Your task to perform on an android device: What's the weather today? Image 0: 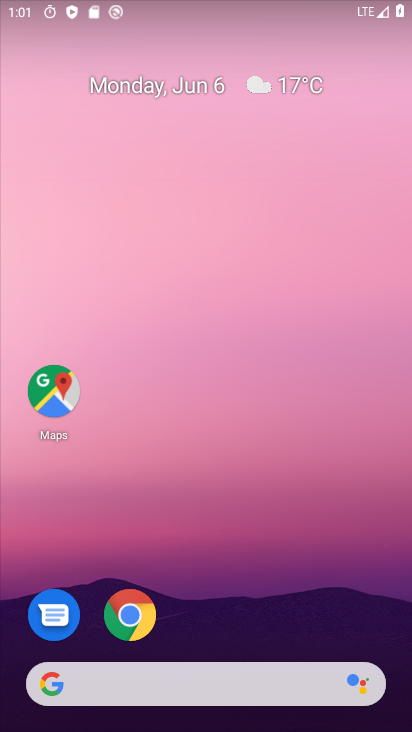
Step 0: click (236, 25)
Your task to perform on an android device: What's the weather today? Image 1: 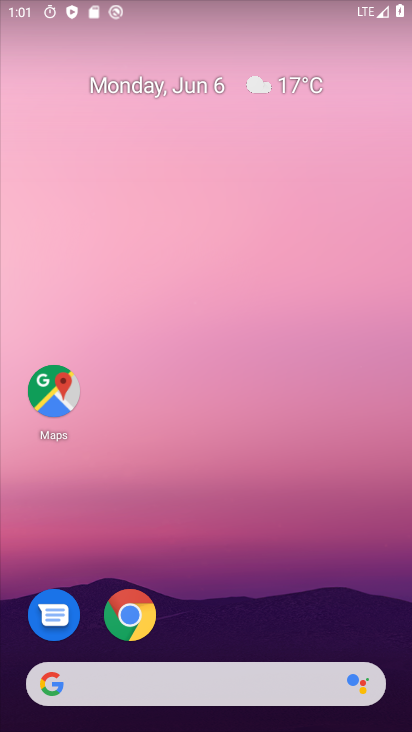
Step 1: drag from (219, 603) to (296, 142)
Your task to perform on an android device: What's the weather today? Image 2: 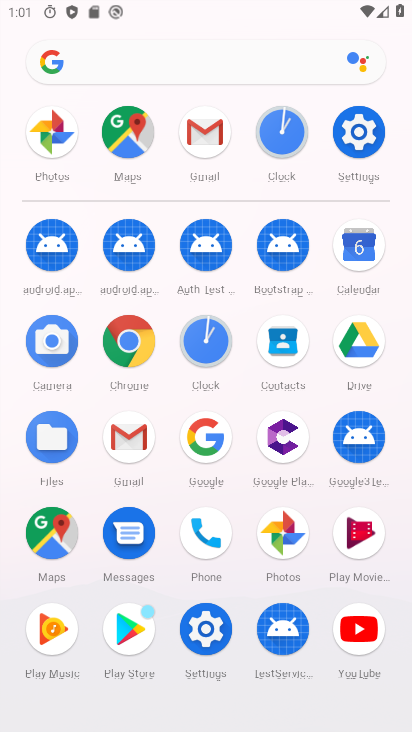
Step 2: click (137, 57)
Your task to perform on an android device: What's the weather today? Image 3: 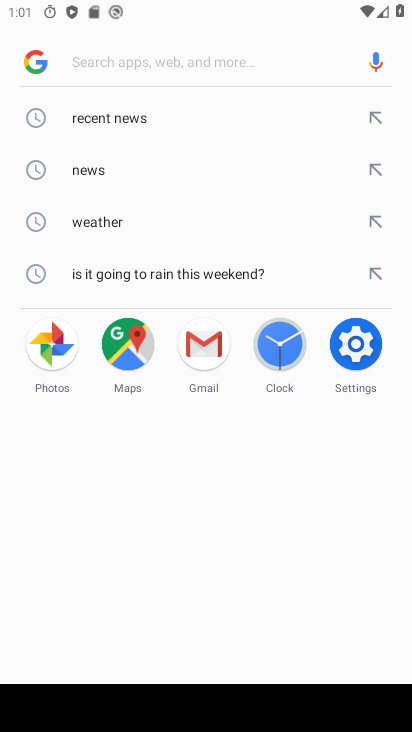
Step 3: type "weather today?"
Your task to perform on an android device: What's the weather today? Image 4: 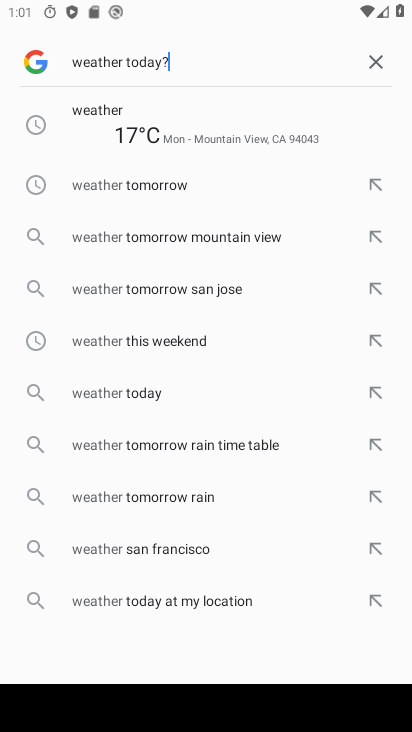
Step 4: type ""
Your task to perform on an android device: What's the weather today? Image 5: 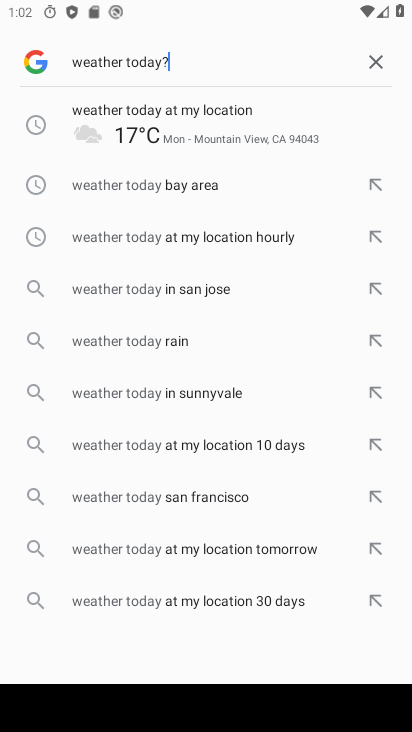
Step 5: click (86, 122)
Your task to perform on an android device: What's the weather today? Image 6: 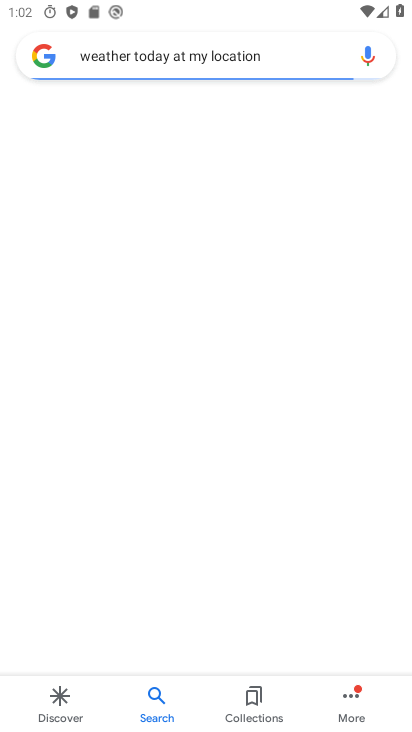
Step 6: task complete